Your task to perform on an android device: Go to ESPN.com Image 0: 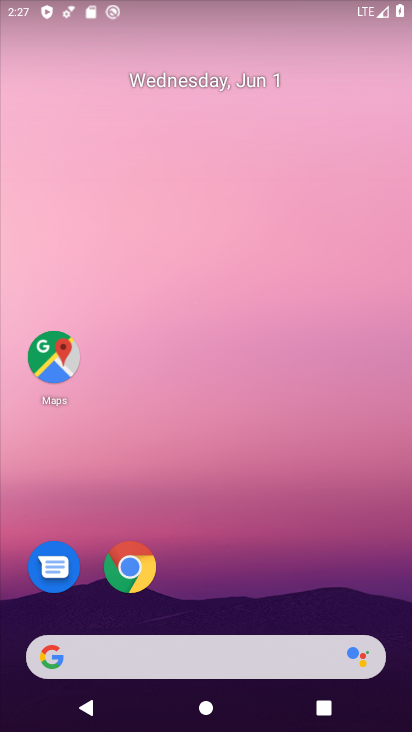
Step 0: click (134, 576)
Your task to perform on an android device: Go to ESPN.com Image 1: 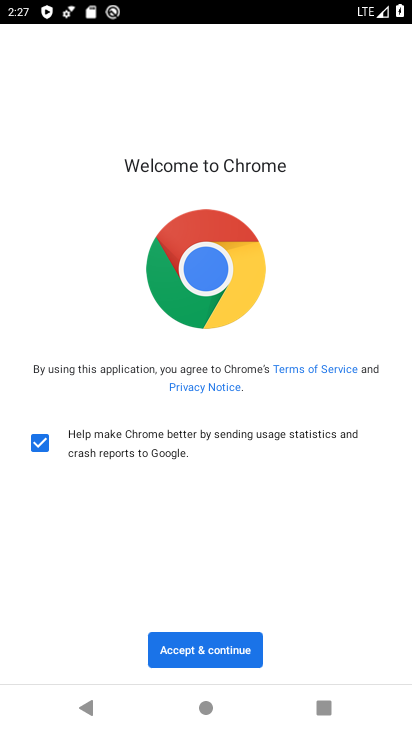
Step 1: click (212, 646)
Your task to perform on an android device: Go to ESPN.com Image 2: 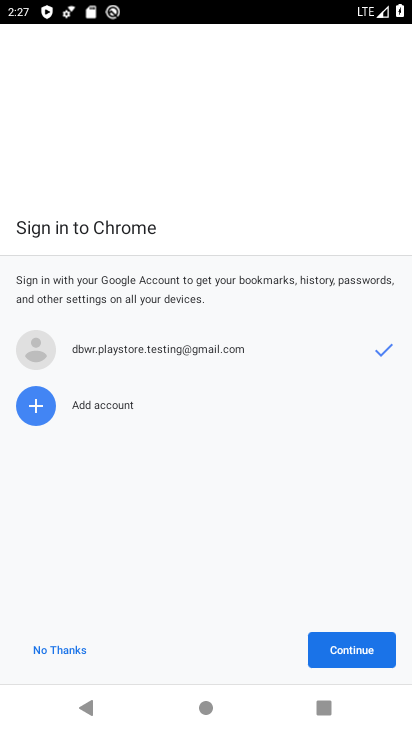
Step 2: click (359, 660)
Your task to perform on an android device: Go to ESPN.com Image 3: 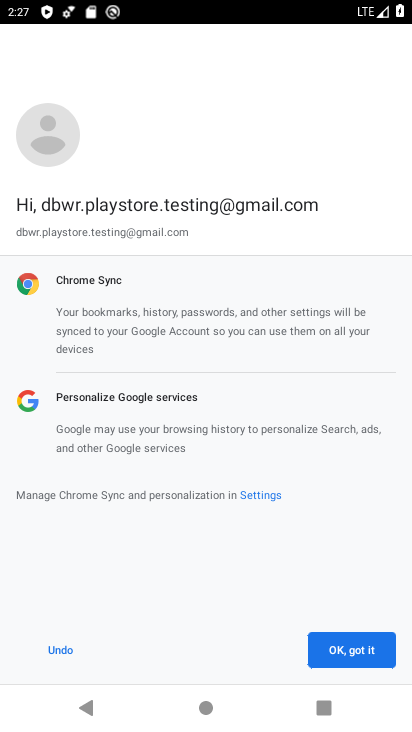
Step 3: click (359, 660)
Your task to perform on an android device: Go to ESPN.com Image 4: 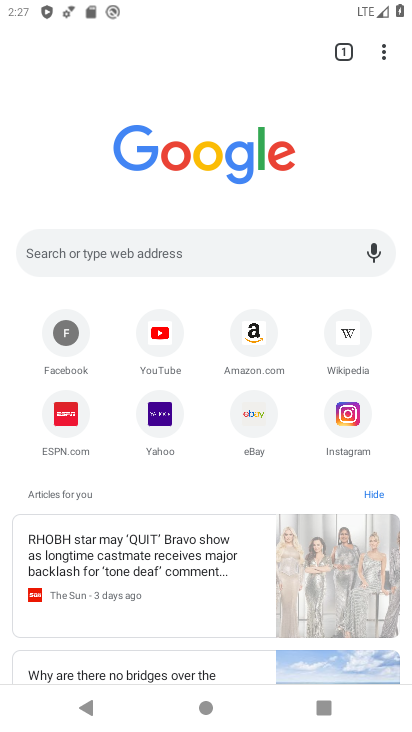
Step 4: click (66, 403)
Your task to perform on an android device: Go to ESPN.com Image 5: 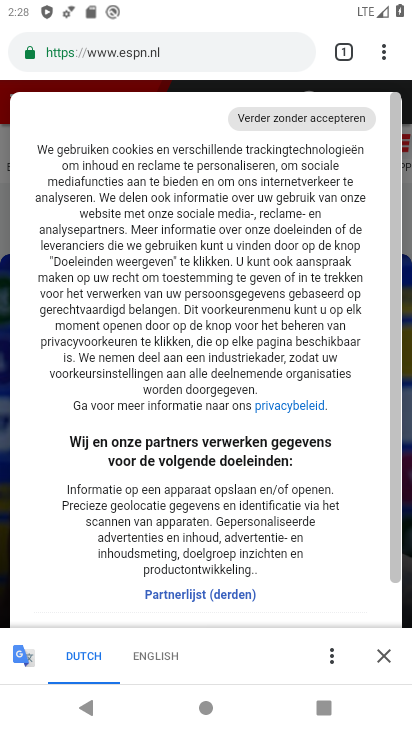
Step 5: click (161, 654)
Your task to perform on an android device: Go to ESPN.com Image 6: 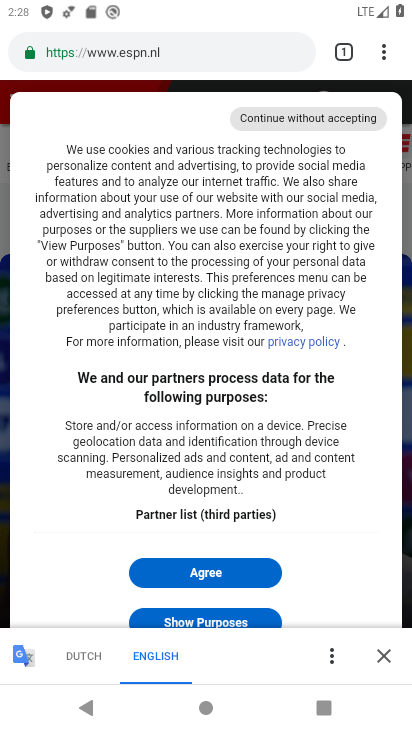
Step 6: click (262, 579)
Your task to perform on an android device: Go to ESPN.com Image 7: 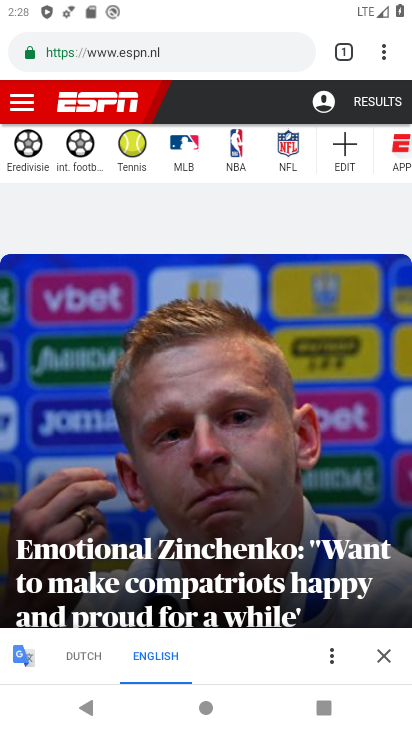
Step 7: task complete